Your task to perform on an android device: install app "Google Chrome" Image 0: 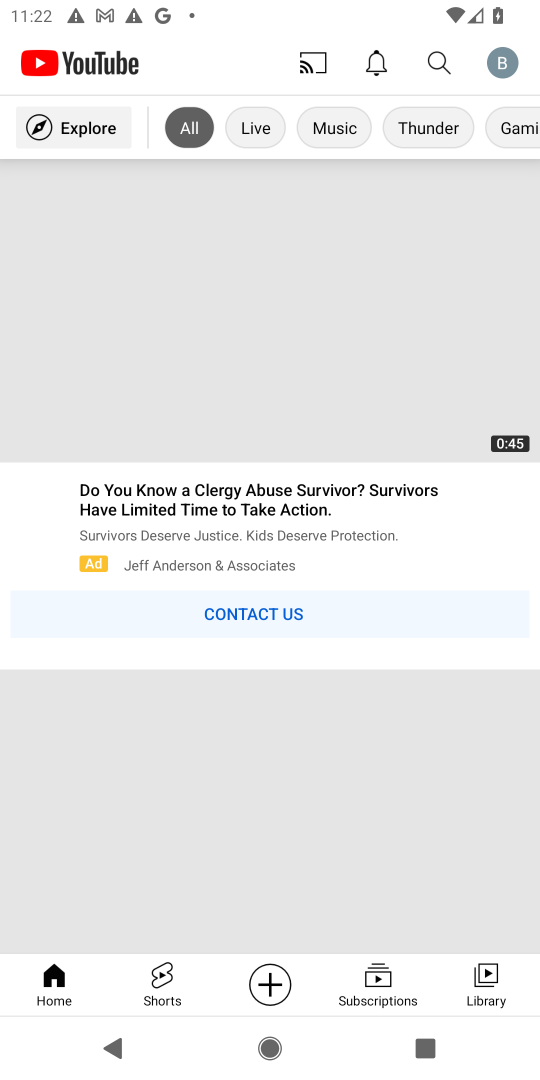
Step 0: press home button
Your task to perform on an android device: install app "Google Chrome" Image 1: 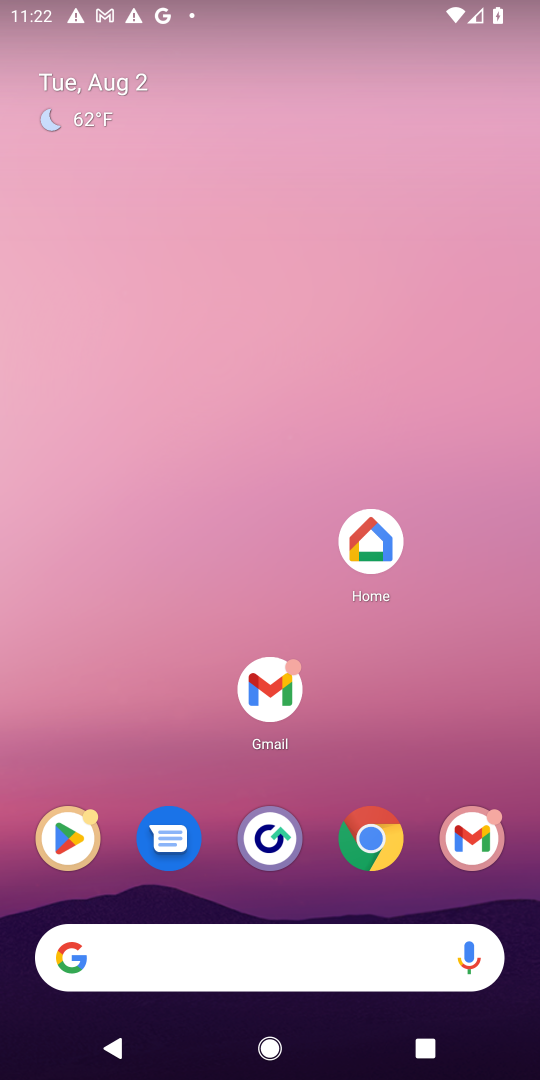
Step 1: drag from (417, 777) to (436, 101)
Your task to perform on an android device: install app "Google Chrome" Image 2: 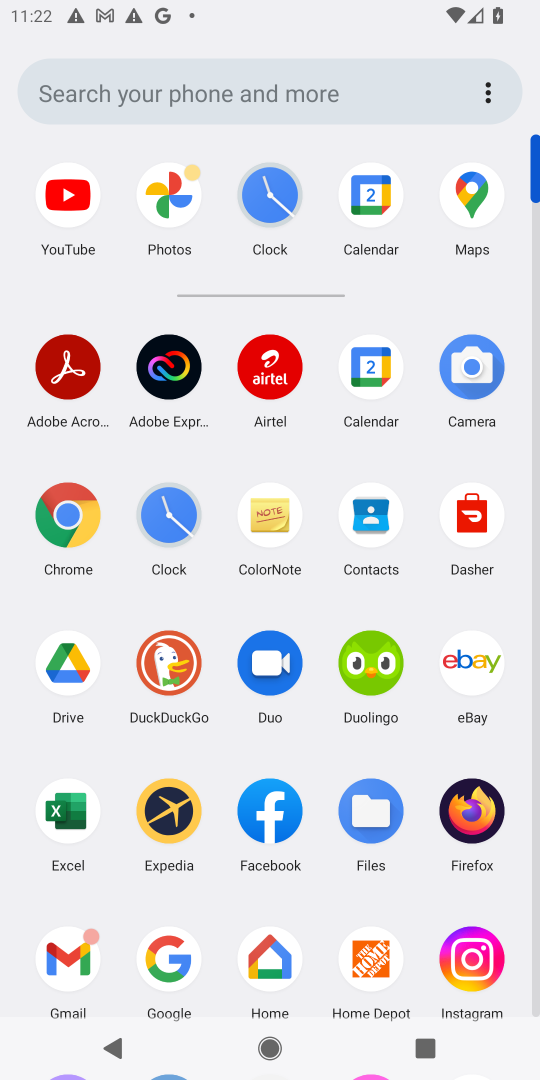
Step 2: drag from (312, 888) to (325, 532)
Your task to perform on an android device: install app "Google Chrome" Image 3: 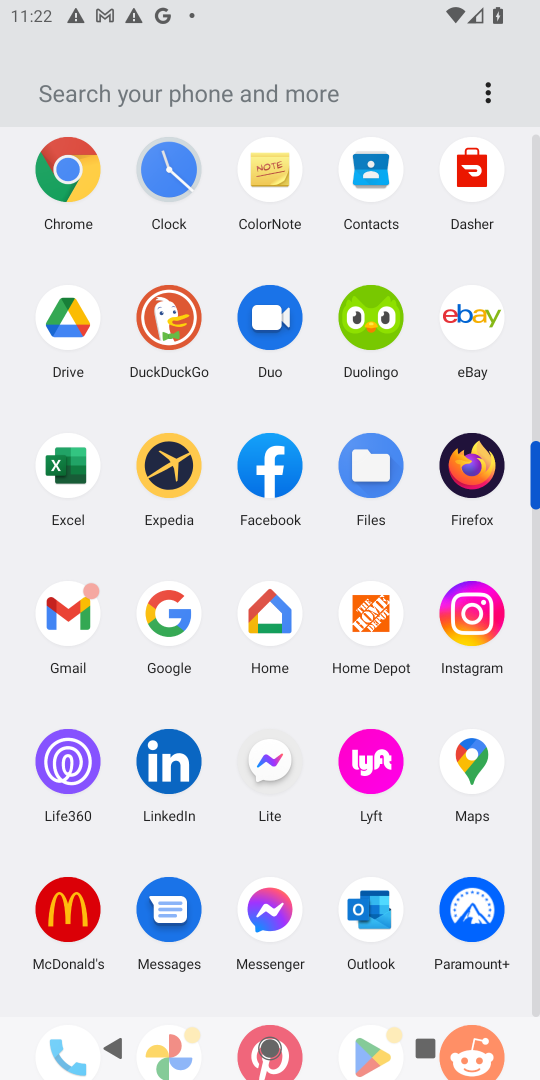
Step 3: drag from (310, 856) to (308, 598)
Your task to perform on an android device: install app "Google Chrome" Image 4: 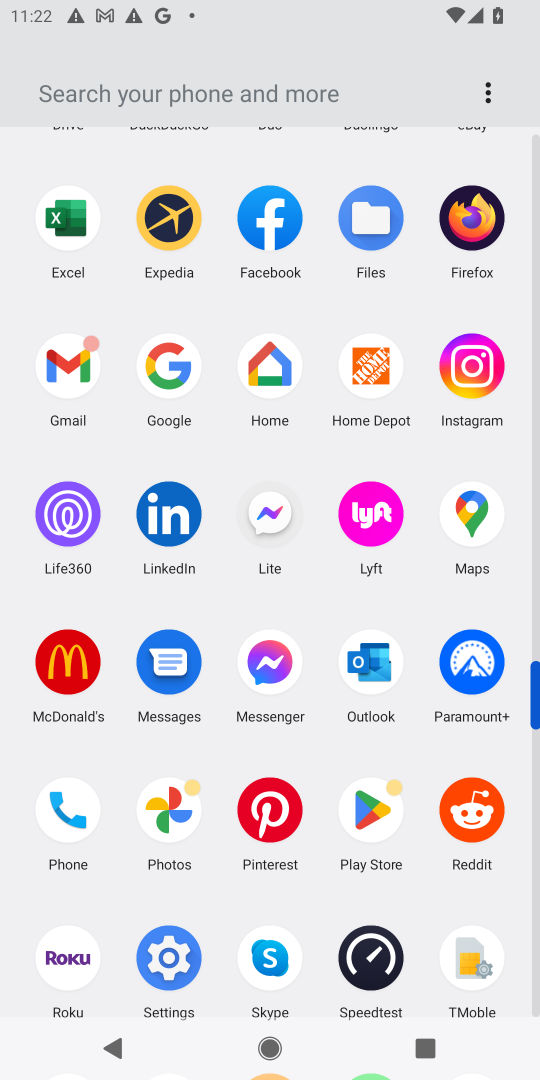
Step 4: click (371, 826)
Your task to perform on an android device: install app "Google Chrome" Image 5: 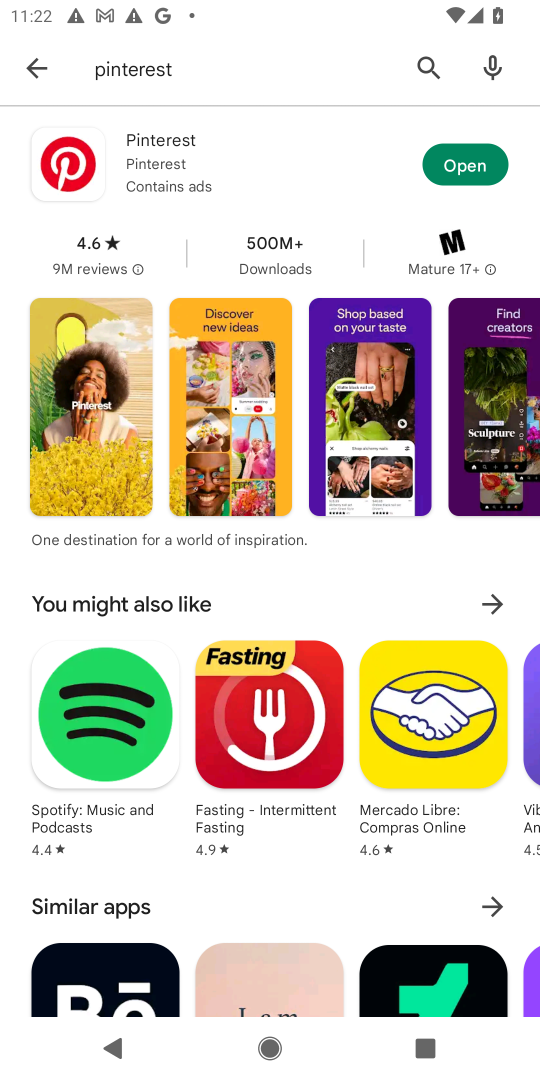
Step 5: click (422, 72)
Your task to perform on an android device: install app "Google Chrome" Image 6: 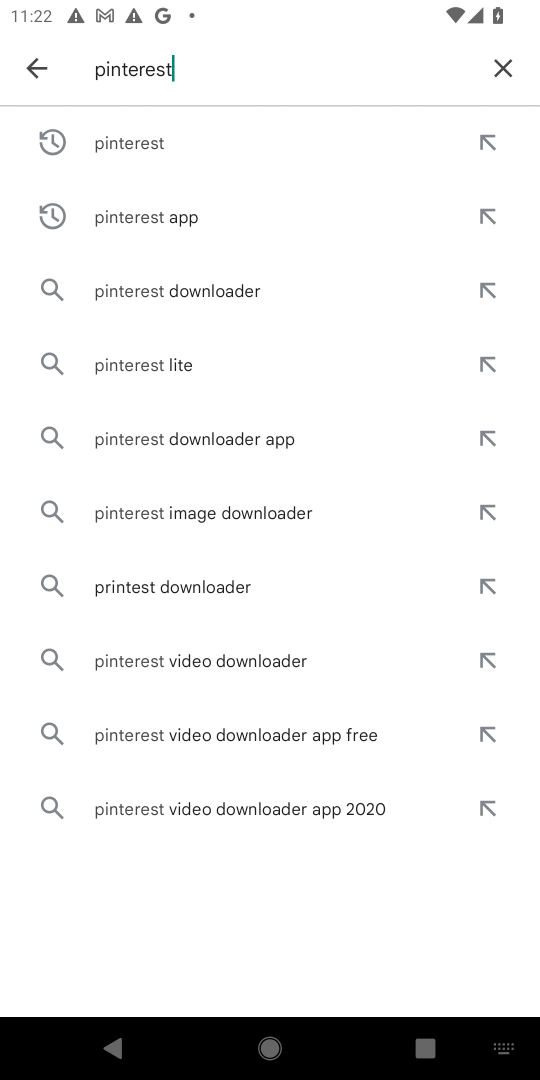
Step 6: click (496, 72)
Your task to perform on an android device: install app "Google Chrome" Image 7: 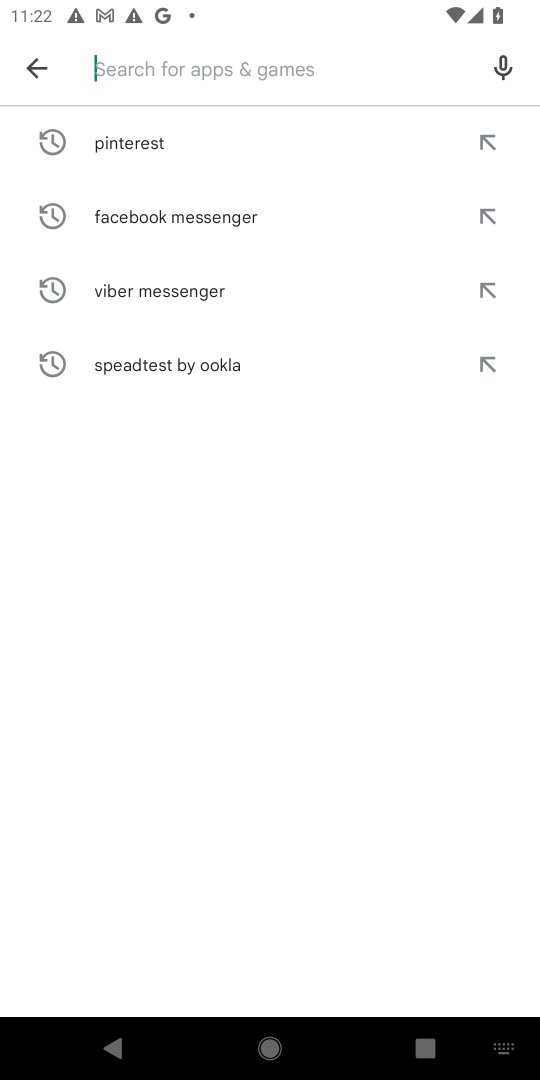
Step 7: type "google chrome"
Your task to perform on an android device: install app "Google Chrome" Image 8: 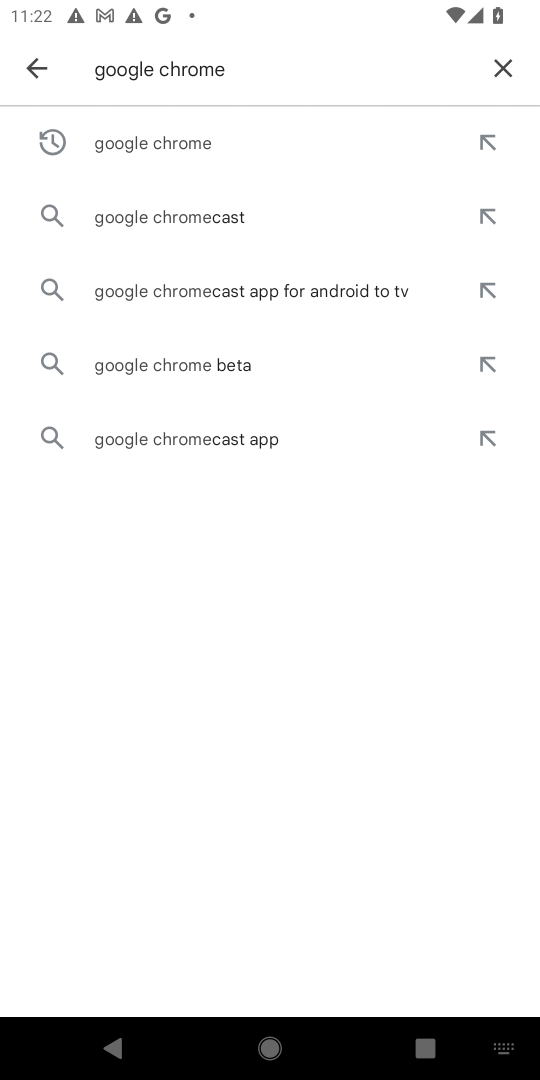
Step 8: click (293, 148)
Your task to perform on an android device: install app "Google Chrome" Image 9: 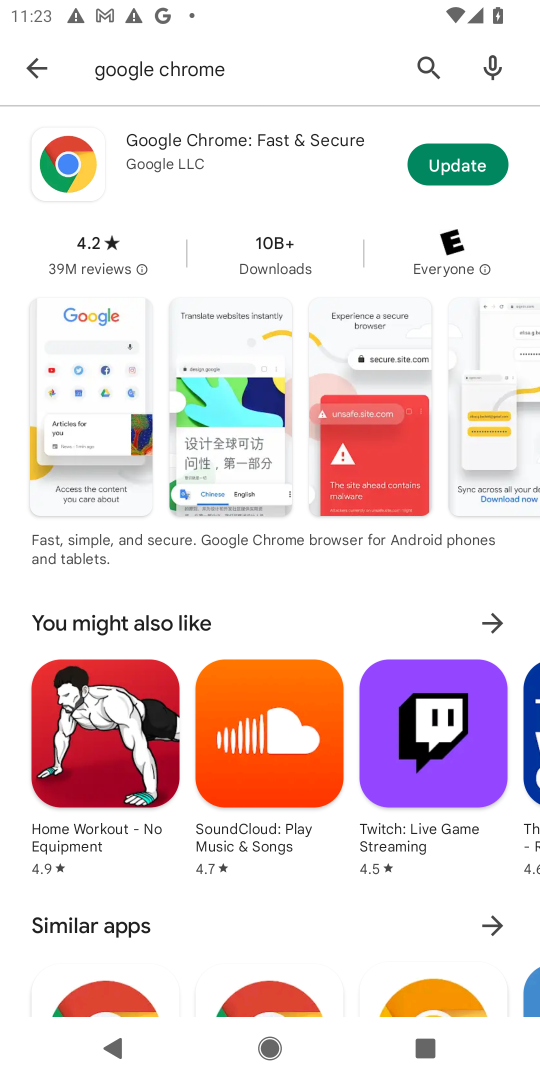
Step 9: task complete